Your task to perform on an android device: manage bookmarks in the chrome app Image 0: 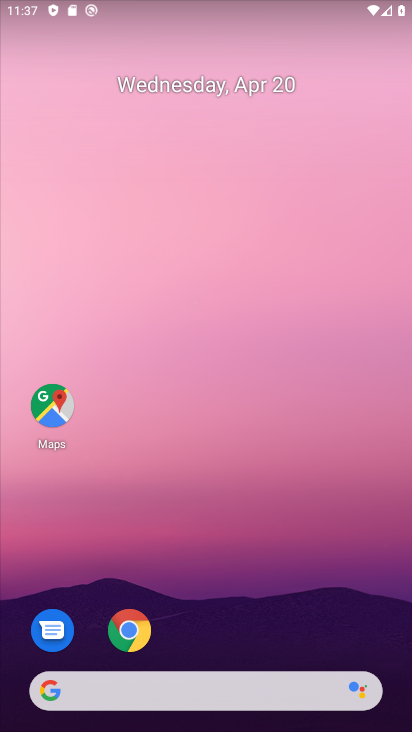
Step 0: drag from (214, 544) to (266, 107)
Your task to perform on an android device: manage bookmarks in the chrome app Image 1: 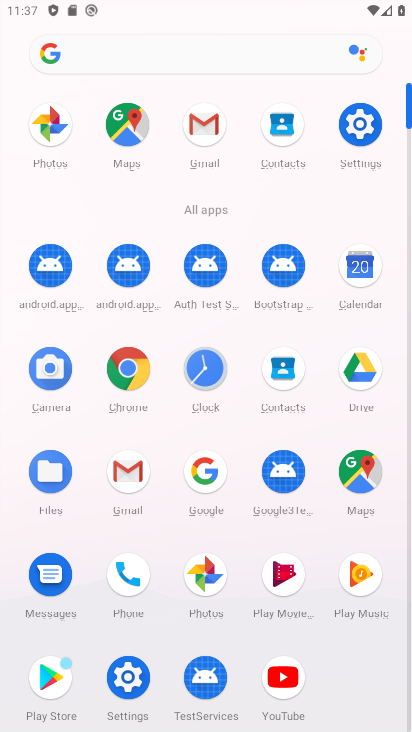
Step 1: click (133, 380)
Your task to perform on an android device: manage bookmarks in the chrome app Image 2: 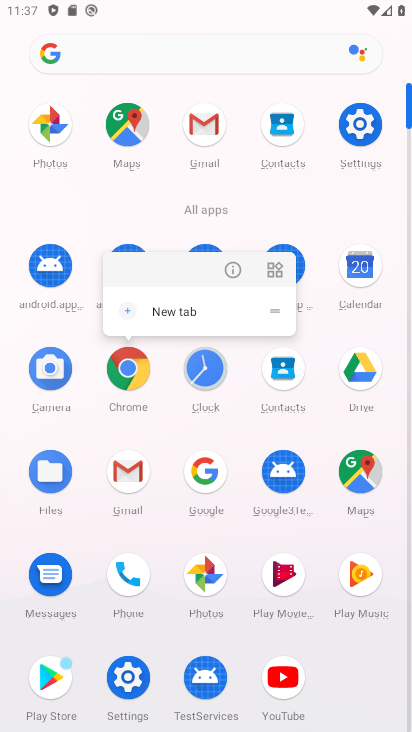
Step 2: click (128, 390)
Your task to perform on an android device: manage bookmarks in the chrome app Image 3: 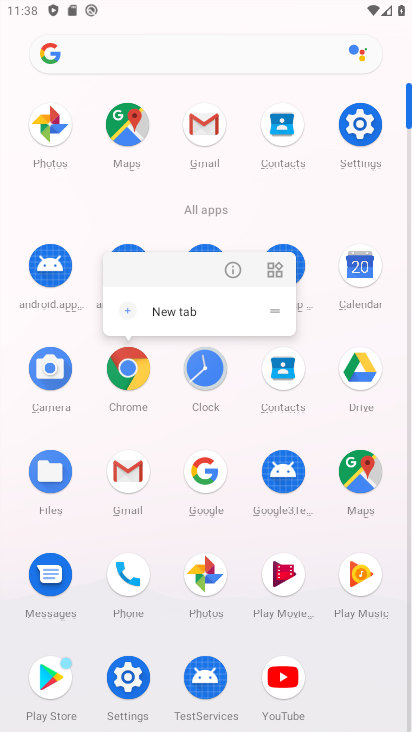
Step 3: click (128, 387)
Your task to perform on an android device: manage bookmarks in the chrome app Image 4: 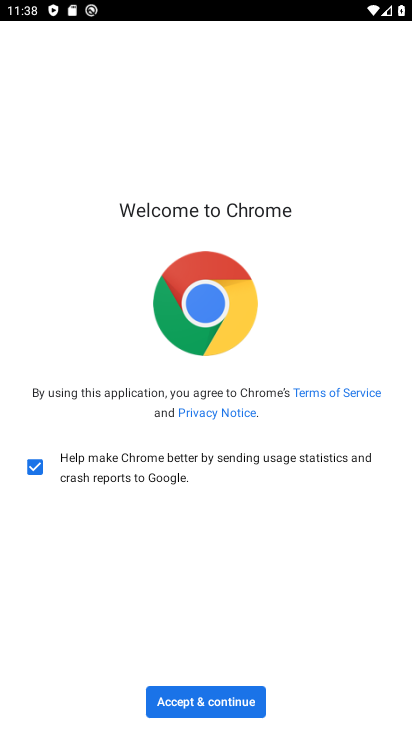
Step 4: click (234, 693)
Your task to perform on an android device: manage bookmarks in the chrome app Image 5: 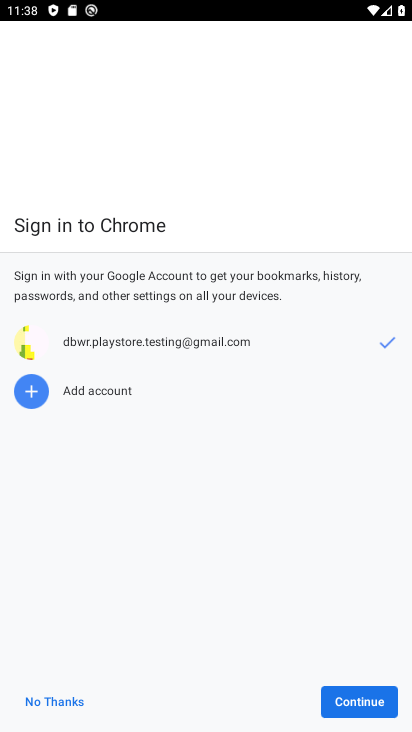
Step 5: click (369, 701)
Your task to perform on an android device: manage bookmarks in the chrome app Image 6: 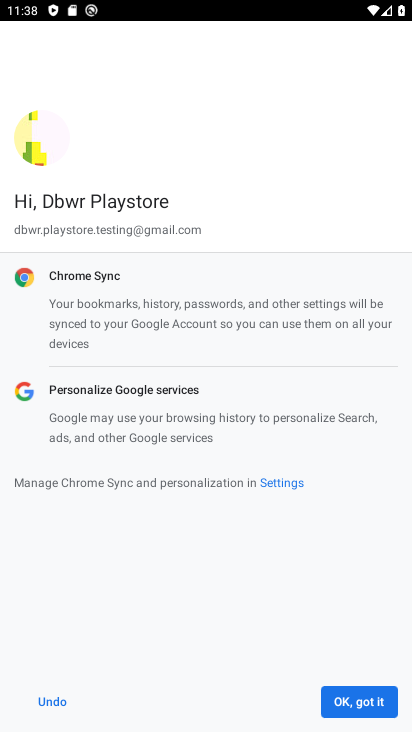
Step 6: click (359, 706)
Your task to perform on an android device: manage bookmarks in the chrome app Image 7: 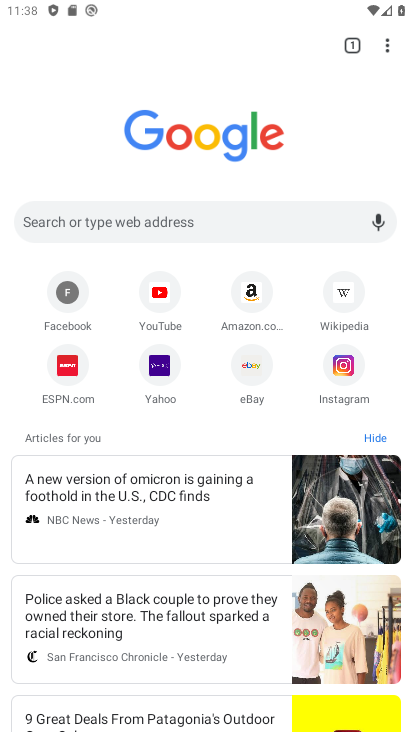
Step 7: task complete